Your task to perform on an android device: turn off smart reply in the gmail app Image 0: 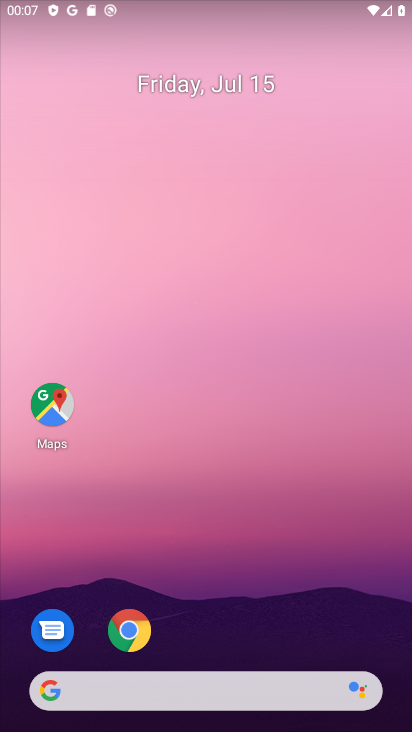
Step 0: drag from (249, 648) to (235, 207)
Your task to perform on an android device: turn off smart reply in the gmail app Image 1: 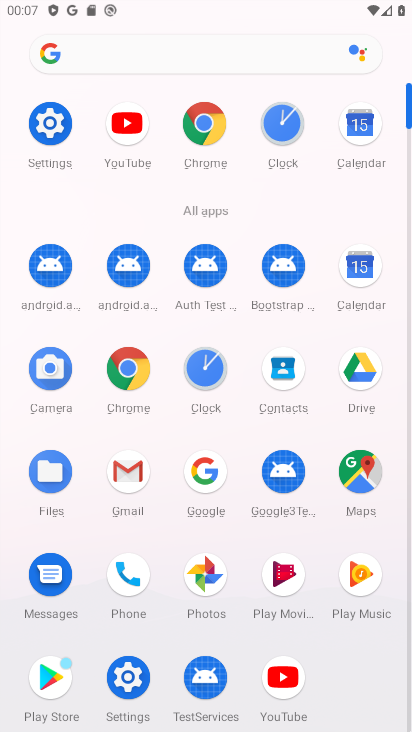
Step 1: click (130, 506)
Your task to perform on an android device: turn off smart reply in the gmail app Image 2: 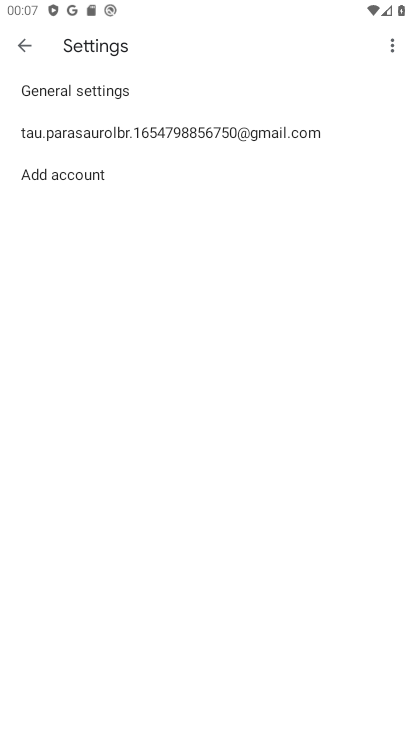
Step 2: click (215, 137)
Your task to perform on an android device: turn off smart reply in the gmail app Image 3: 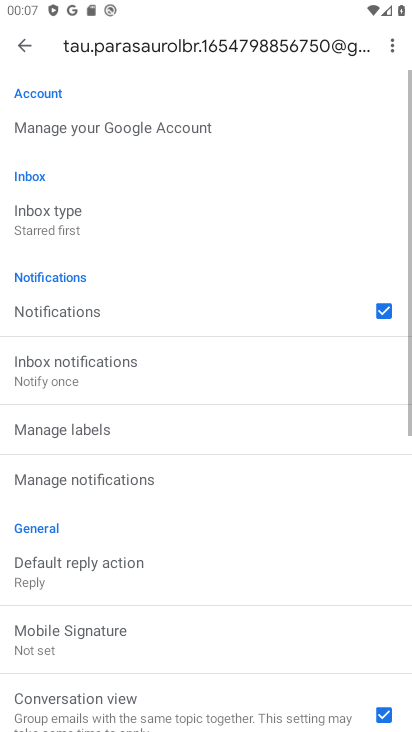
Step 3: drag from (133, 622) to (135, 250)
Your task to perform on an android device: turn off smart reply in the gmail app Image 4: 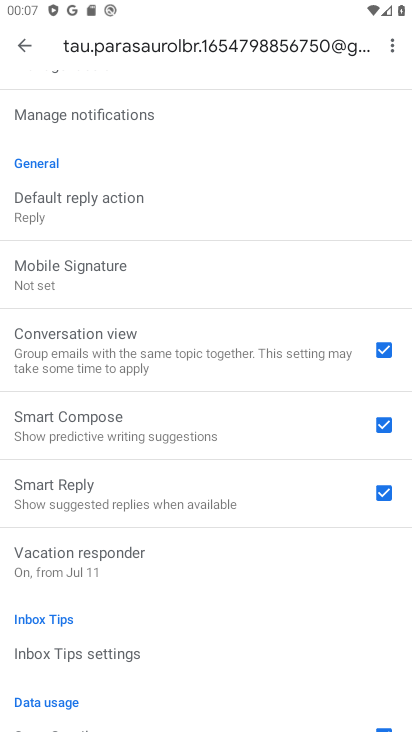
Step 4: click (397, 499)
Your task to perform on an android device: turn off smart reply in the gmail app Image 5: 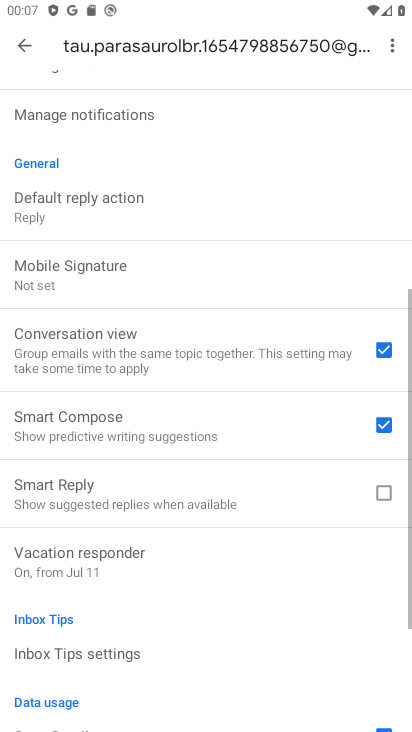
Step 5: click (397, 499)
Your task to perform on an android device: turn off smart reply in the gmail app Image 6: 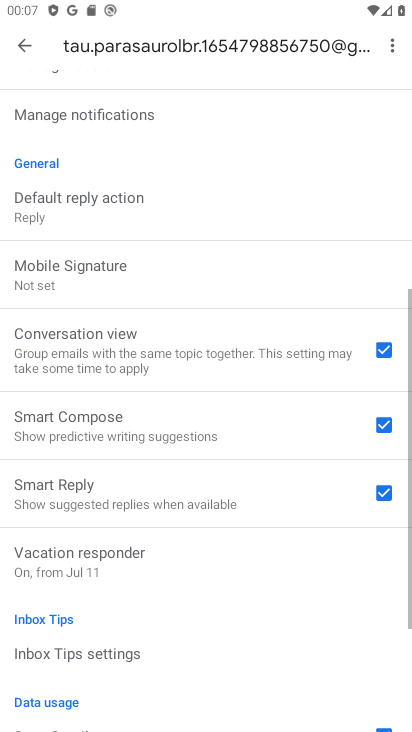
Step 6: click (372, 481)
Your task to perform on an android device: turn off smart reply in the gmail app Image 7: 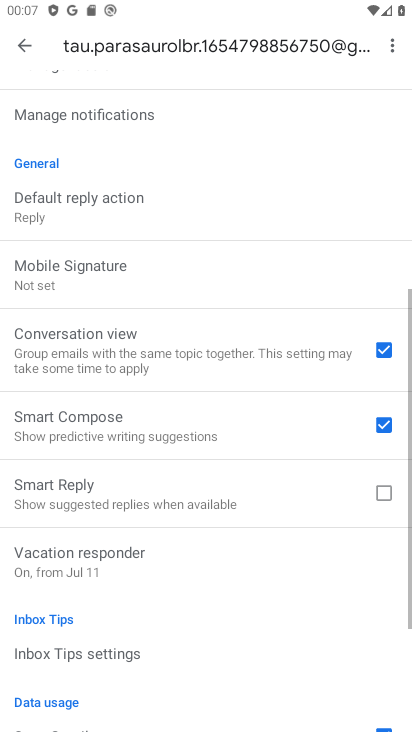
Step 7: task complete